Your task to perform on an android device: Search for Italian restaurants on Maps Image 0: 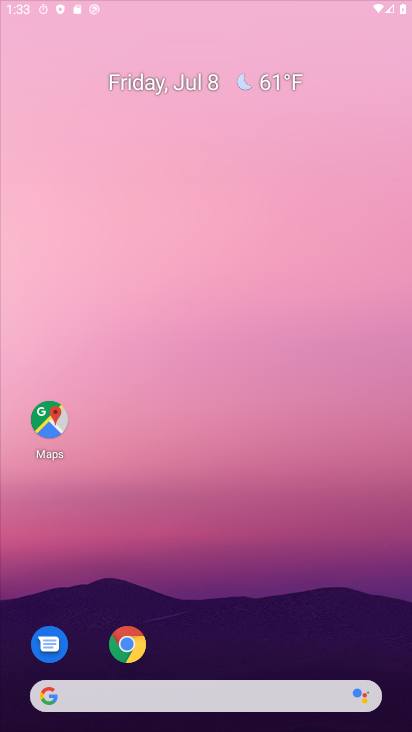
Step 0: click (246, 2)
Your task to perform on an android device: Search for Italian restaurants on Maps Image 1: 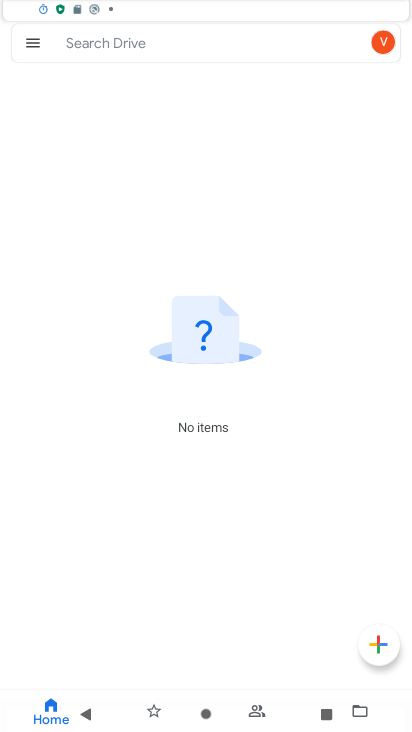
Step 1: press home button
Your task to perform on an android device: Search for Italian restaurants on Maps Image 2: 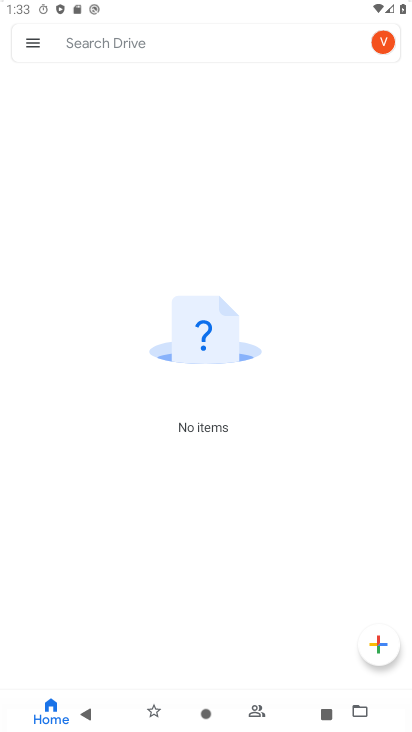
Step 2: drag from (246, 2) to (388, 525)
Your task to perform on an android device: Search for Italian restaurants on Maps Image 3: 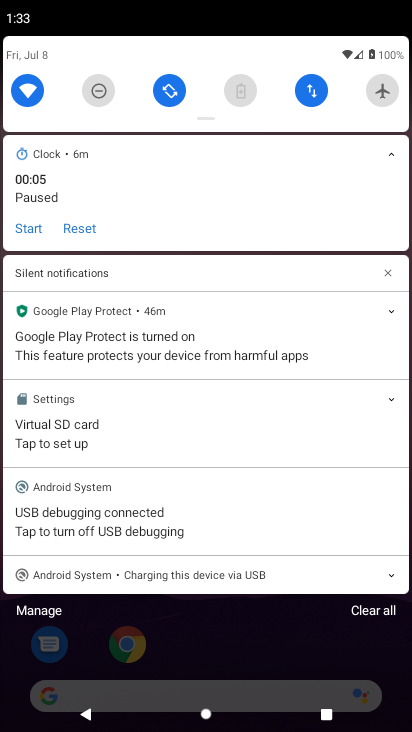
Step 3: click (172, 633)
Your task to perform on an android device: Search for Italian restaurants on Maps Image 4: 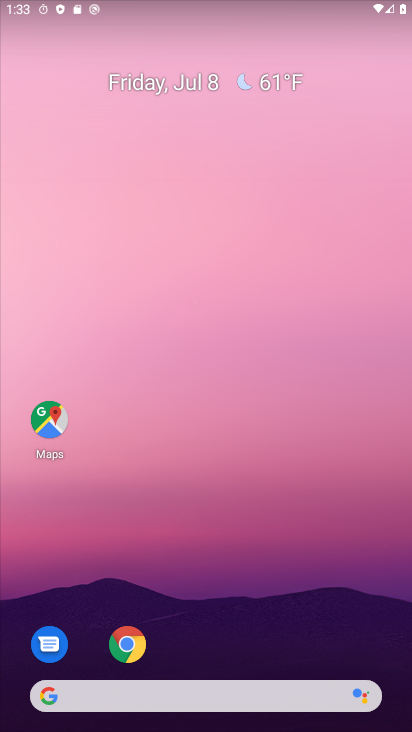
Step 4: click (51, 422)
Your task to perform on an android device: Search for Italian restaurants on Maps Image 5: 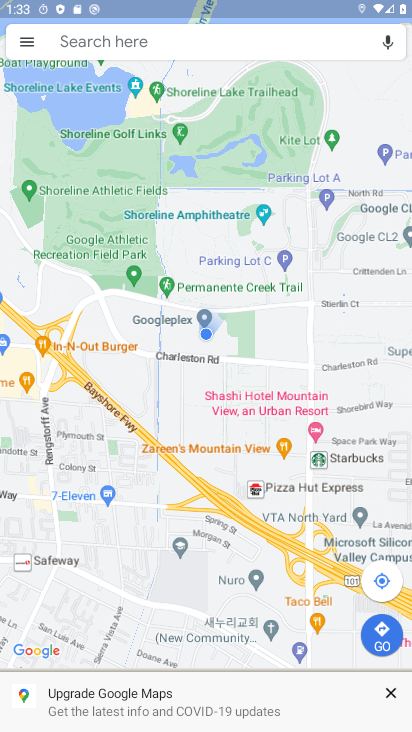
Step 5: click (128, 40)
Your task to perform on an android device: Search for Italian restaurants on Maps Image 6: 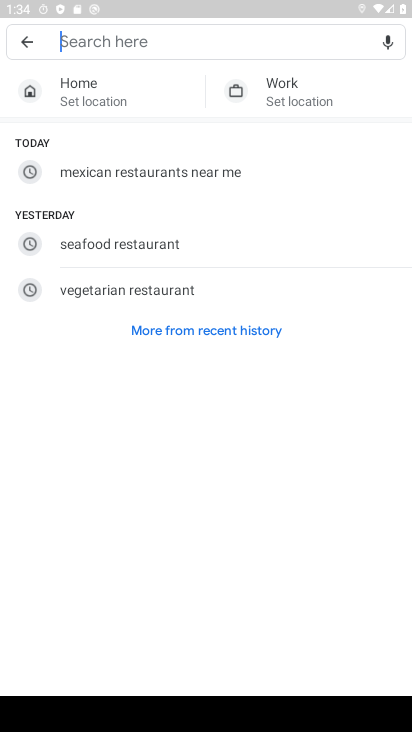
Step 6: type "italian restaurants"
Your task to perform on an android device: Search for Italian restaurants on Maps Image 7: 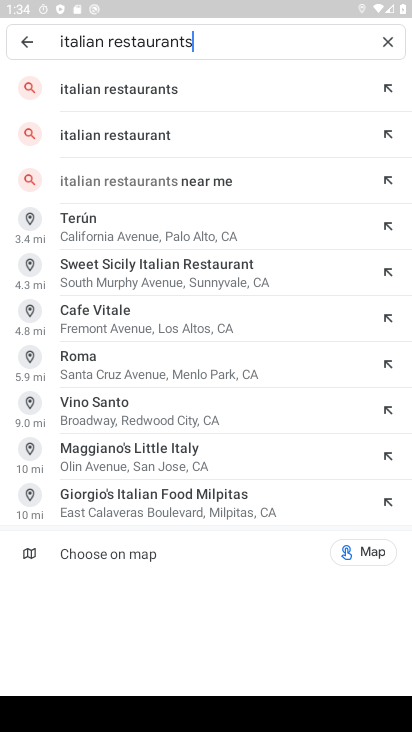
Step 7: click (98, 80)
Your task to perform on an android device: Search for Italian restaurants on Maps Image 8: 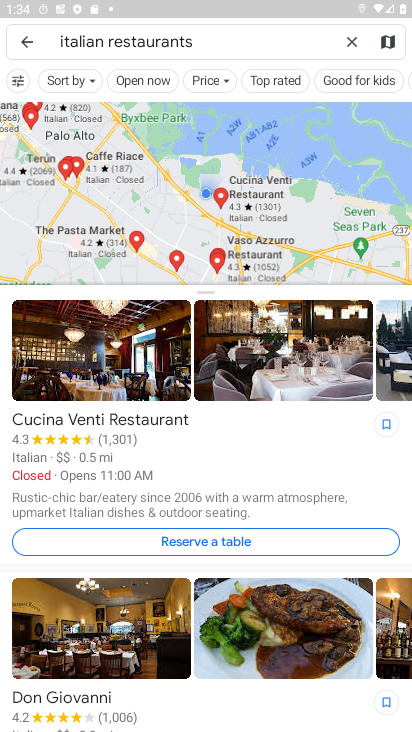
Step 8: task complete